Your task to perform on an android device: Go to Yahoo.com Image 0: 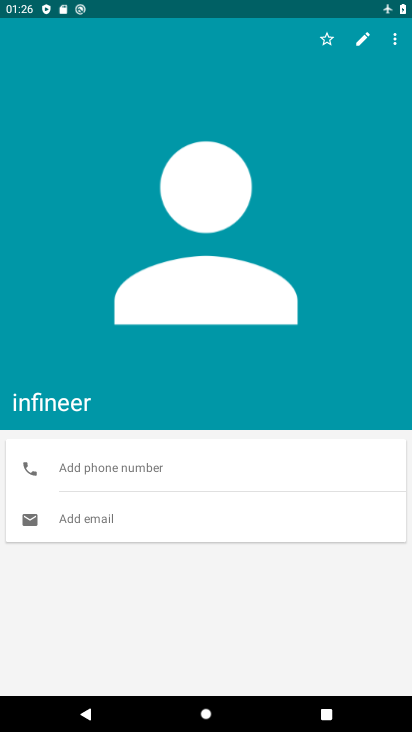
Step 0: press home button
Your task to perform on an android device: Go to Yahoo.com Image 1: 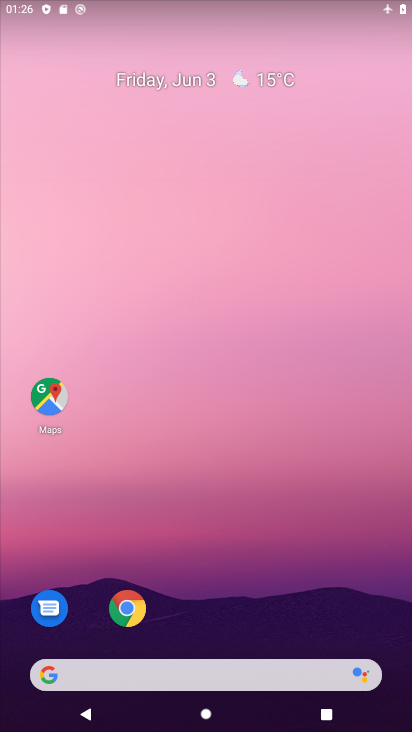
Step 1: click (124, 610)
Your task to perform on an android device: Go to Yahoo.com Image 2: 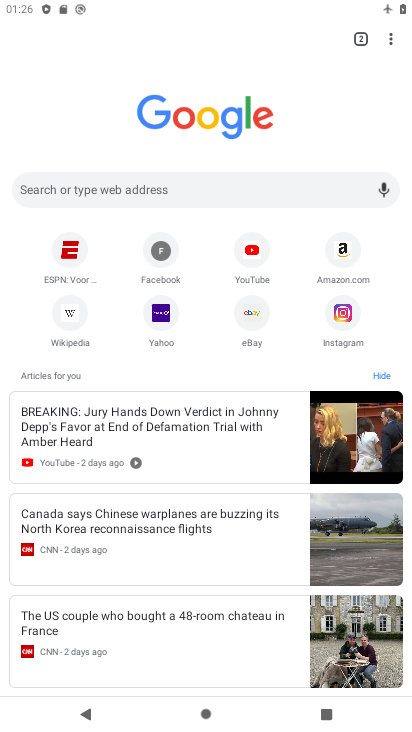
Step 2: click (172, 319)
Your task to perform on an android device: Go to Yahoo.com Image 3: 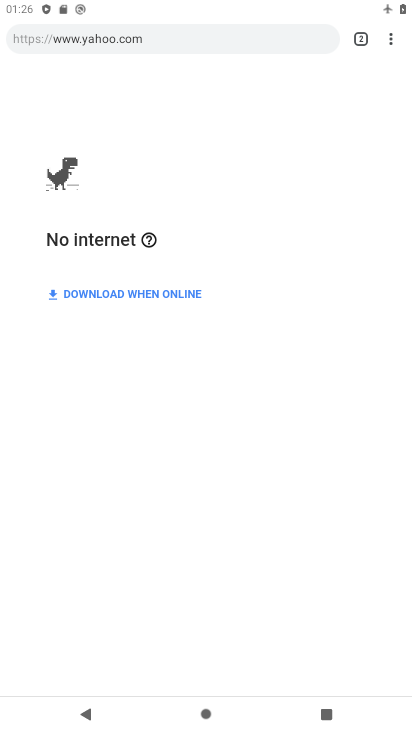
Step 3: task complete